Your task to perform on an android device: change the clock display to analog Image 0: 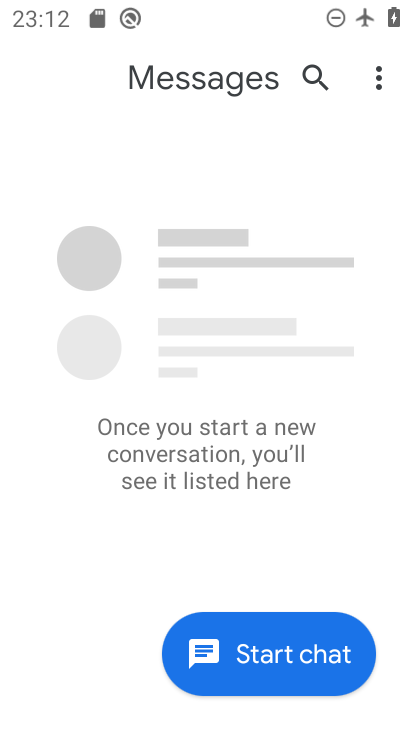
Step 0: drag from (282, 426) to (318, 197)
Your task to perform on an android device: change the clock display to analog Image 1: 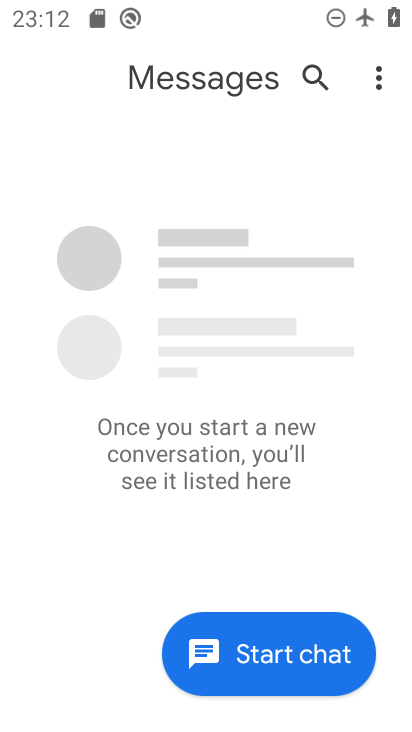
Step 1: press home button
Your task to perform on an android device: change the clock display to analog Image 2: 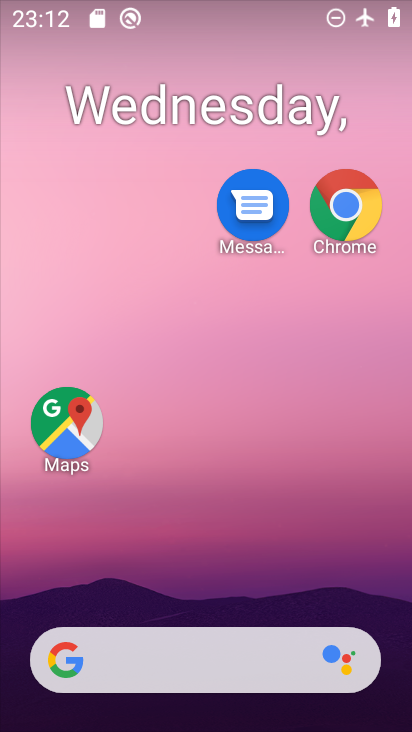
Step 2: drag from (241, 455) to (342, 42)
Your task to perform on an android device: change the clock display to analog Image 3: 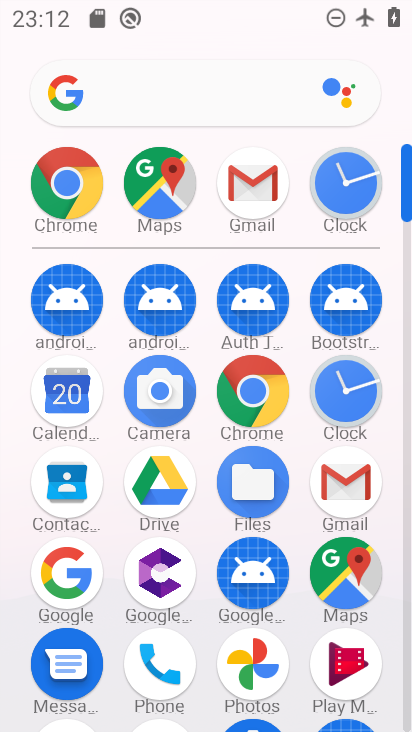
Step 3: click (355, 382)
Your task to perform on an android device: change the clock display to analog Image 4: 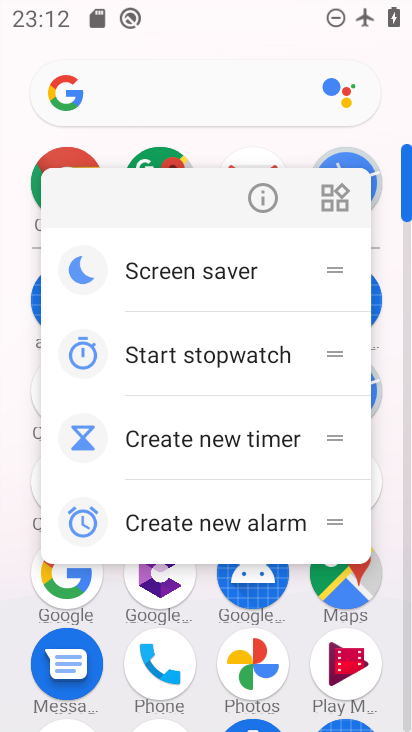
Step 4: click (268, 208)
Your task to perform on an android device: change the clock display to analog Image 5: 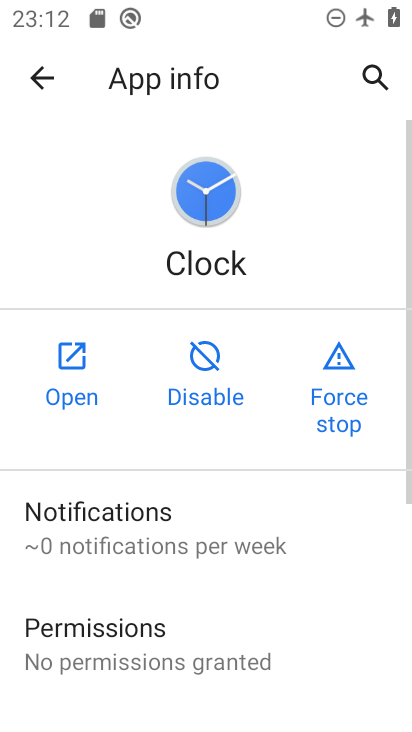
Step 5: click (44, 391)
Your task to perform on an android device: change the clock display to analog Image 6: 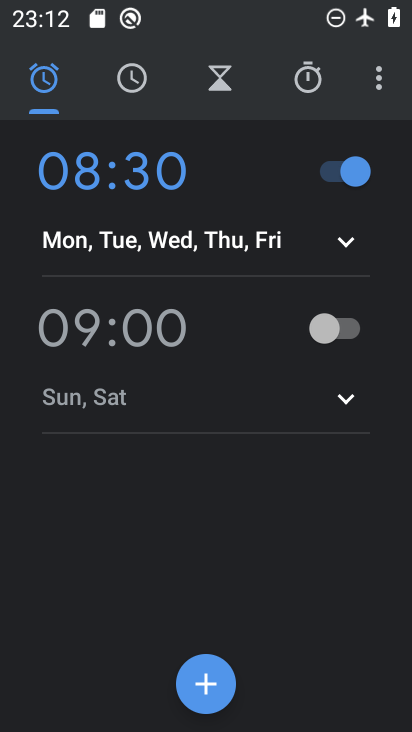
Step 6: click (369, 74)
Your task to perform on an android device: change the clock display to analog Image 7: 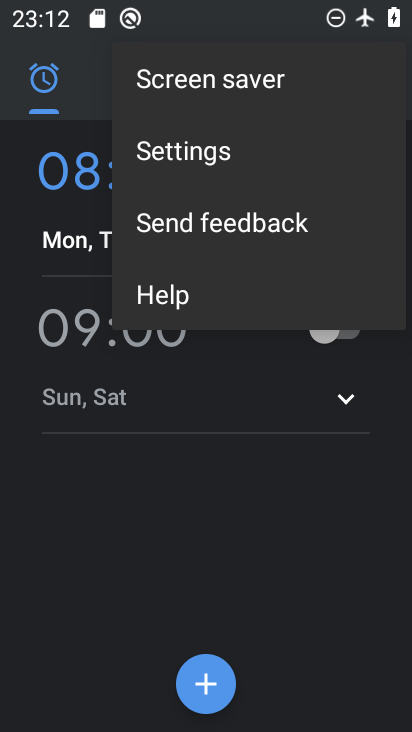
Step 7: click (192, 157)
Your task to perform on an android device: change the clock display to analog Image 8: 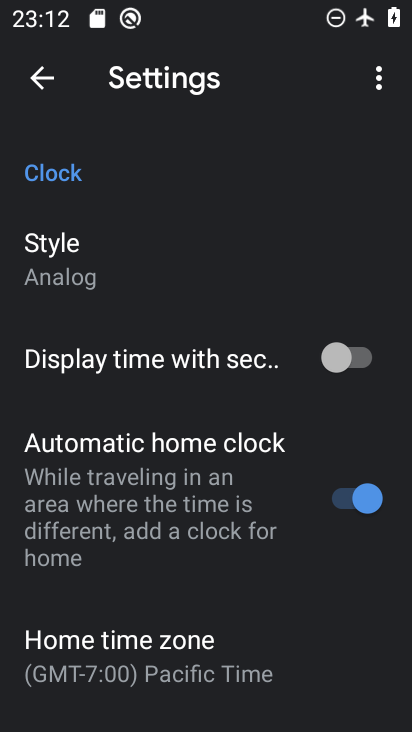
Step 8: click (131, 261)
Your task to perform on an android device: change the clock display to analog Image 9: 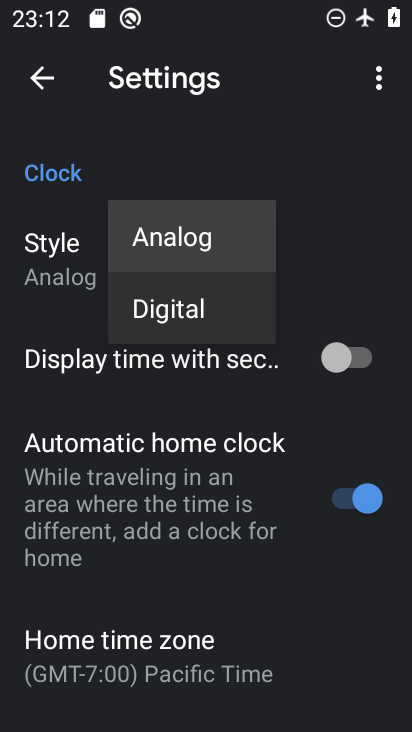
Step 9: task complete